Your task to perform on an android device: What's the weather going to be tomorrow? Image 0: 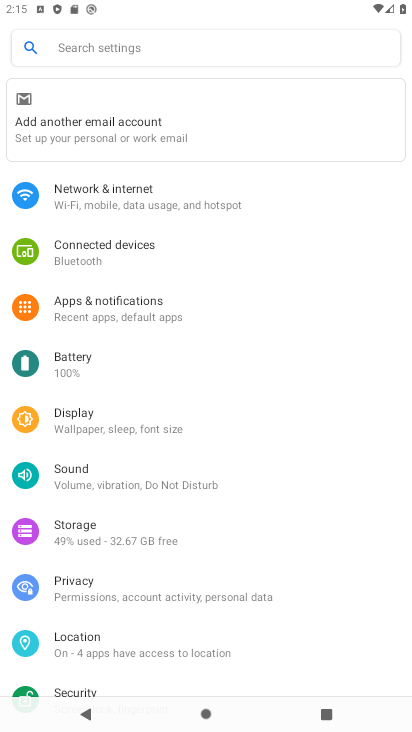
Step 0: press home button
Your task to perform on an android device: What's the weather going to be tomorrow? Image 1: 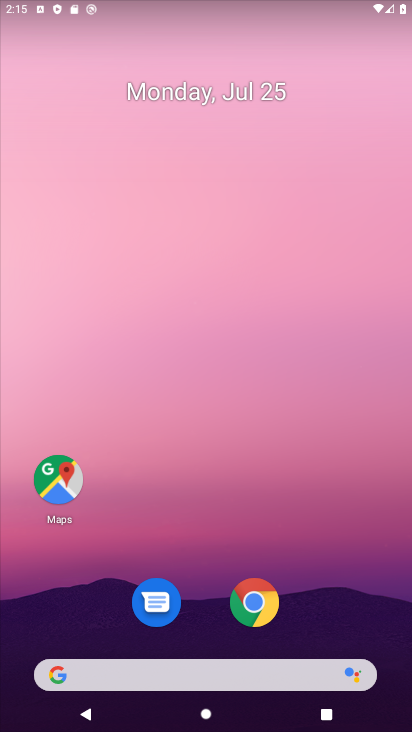
Step 1: click (189, 676)
Your task to perform on an android device: What's the weather going to be tomorrow? Image 2: 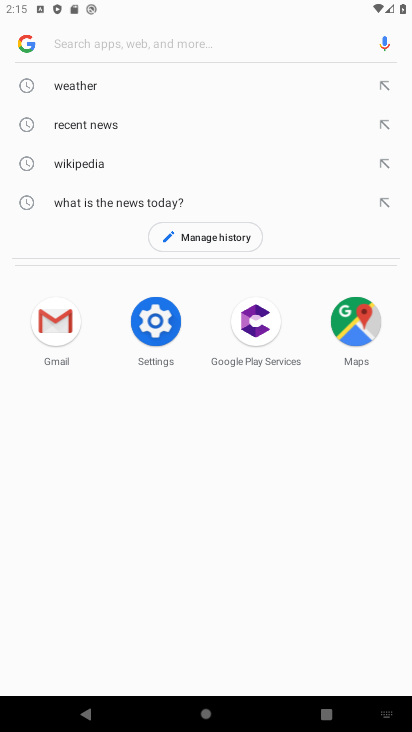
Step 2: type "What's the weather going to be tomorrow?"
Your task to perform on an android device: What's the weather going to be tomorrow? Image 3: 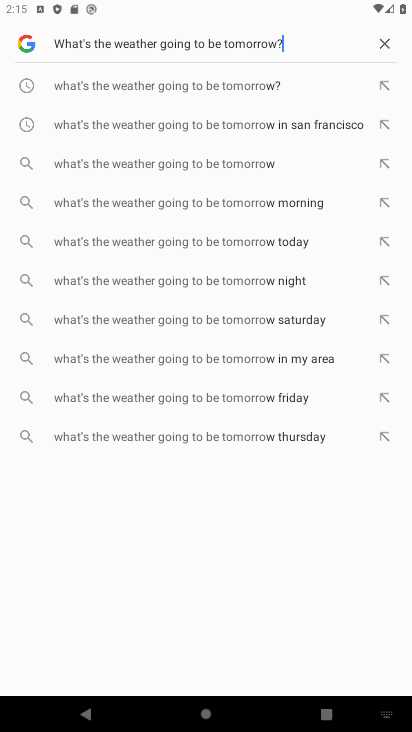
Step 3: task complete